Your task to perform on an android device: toggle translation in the chrome app Image 0: 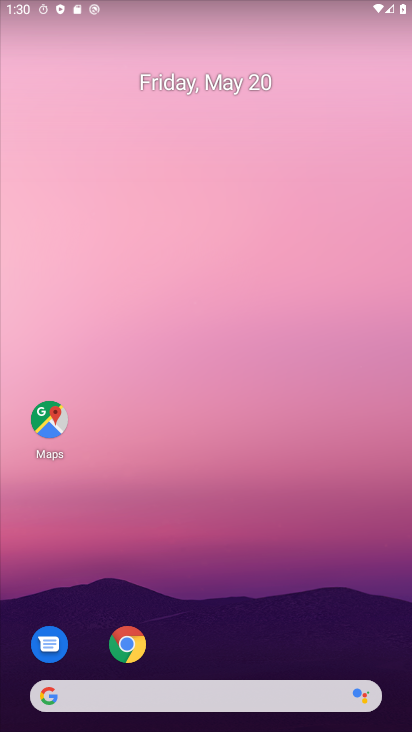
Step 0: click (120, 658)
Your task to perform on an android device: toggle translation in the chrome app Image 1: 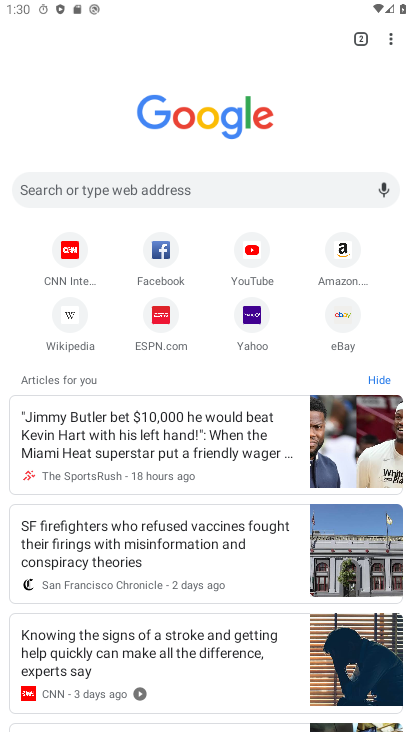
Step 1: click (399, 31)
Your task to perform on an android device: toggle translation in the chrome app Image 2: 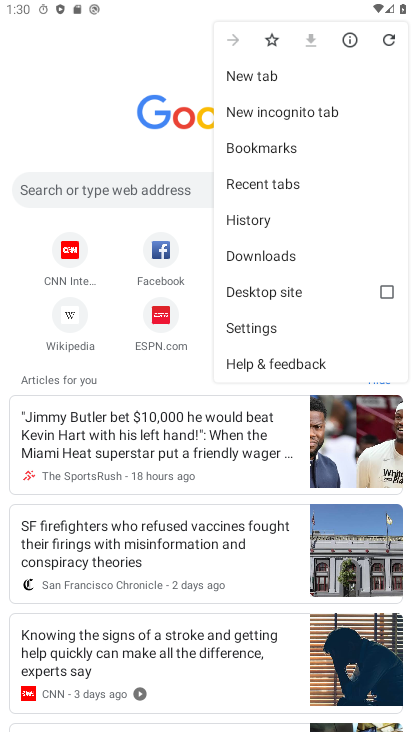
Step 2: click (259, 333)
Your task to perform on an android device: toggle translation in the chrome app Image 3: 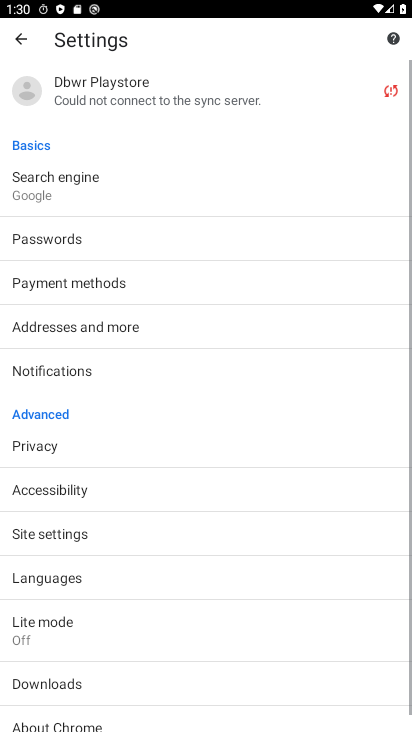
Step 3: click (259, 333)
Your task to perform on an android device: toggle translation in the chrome app Image 4: 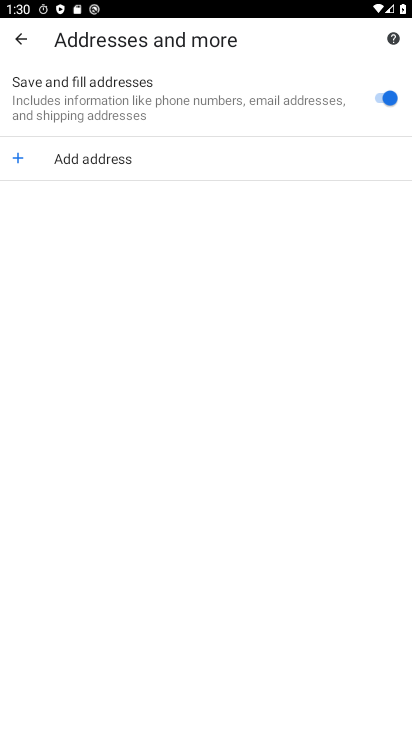
Step 4: click (87, 582)
Your task to perform on an android device: toggle translation in the chrome app Image 5: 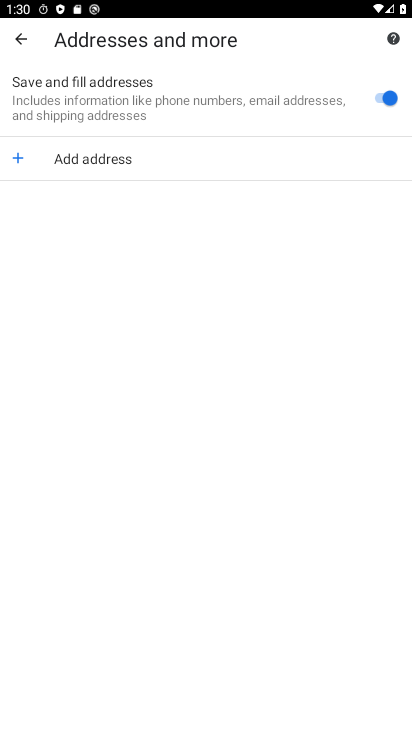
Step 5: click (27, 46)
Your task to perform on an android device: toggle translation in the chrome app Image 6: 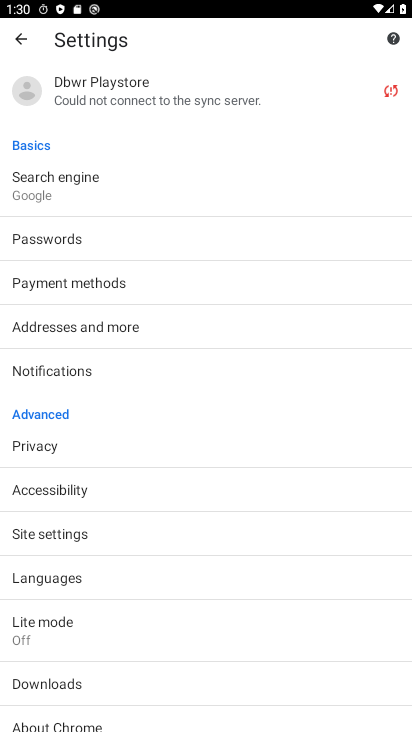
Step 6: click (88, 582)
Your task to perform on an android device: toggle translation in the chrome app Image 7: 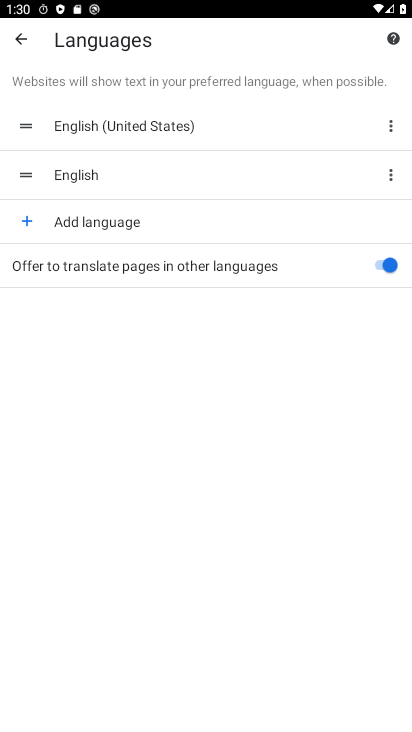
Step 7: click (88, 582)
Your task to perform on an android device: toggle translation in the chrome app Image 8: 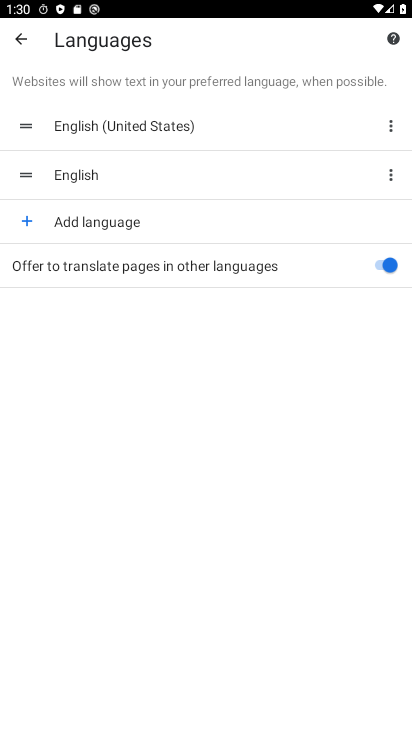
Step 8: click (138, 573)
Your task to perform on an android device: toggle translation in the chrome app Image 9: 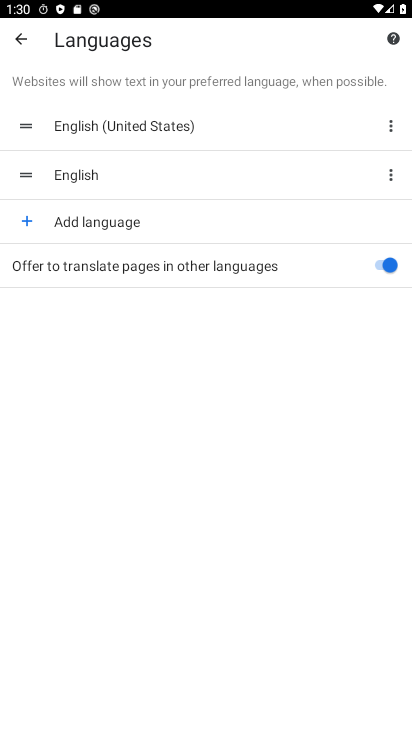
Step 9: click (381, 259)
Your task to perform on an android device: toggle translation in the chrome app Image 10: 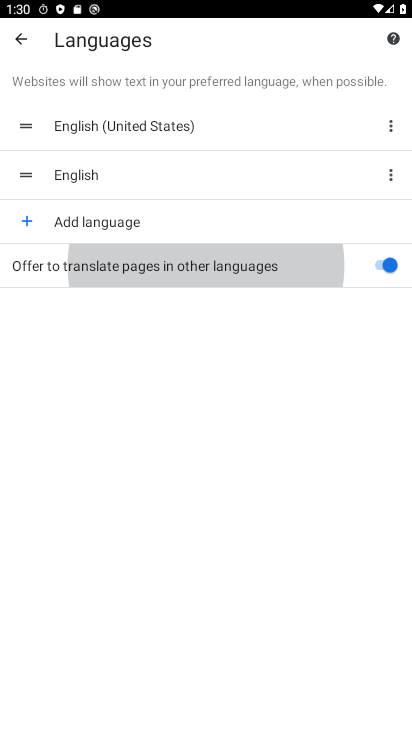
Step 10: click (381, 259)
Your task to perform on an android device: toggle translation in the chrome app Image 11: 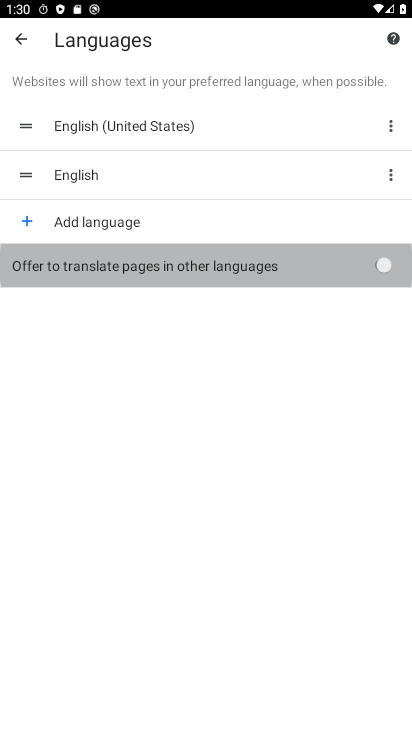
Step 11: click (381, 259)
Your task to perform on an android device: toggle translation in the chrome app Image 12: 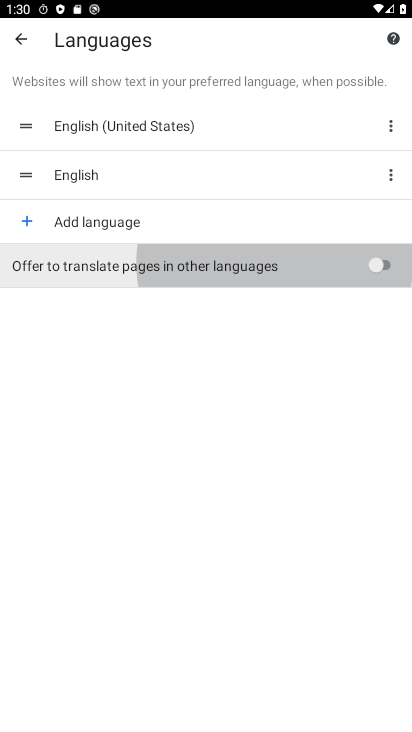
Step 12: click (381, 259)
Your task to perform on an android device: toggle translation in the chrome app Image 13: 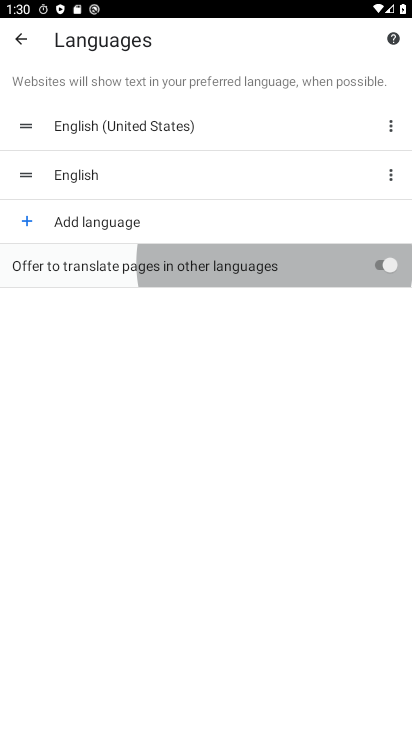
Step 13: click (381, 259)
Your task to perform on an android device: toggle translation in the chrome app Image 14: 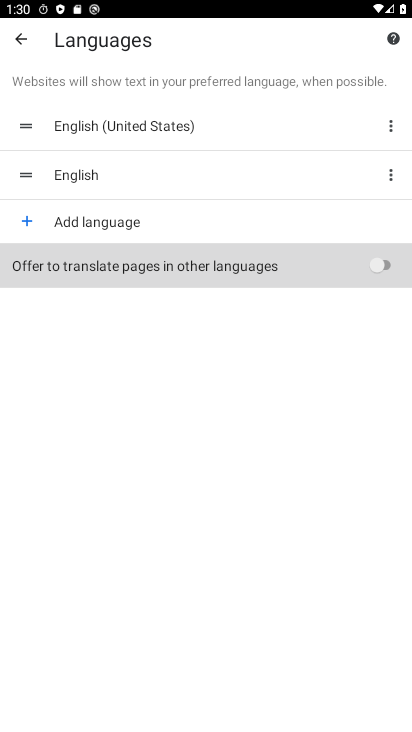
Step 14: click (381, 259)
Your task to perform on an android device: toggle translation in the chrome app Image 15: 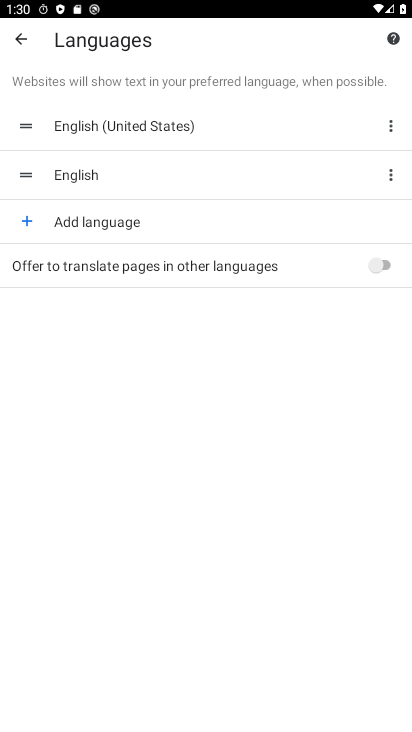
Step 15: task complete